Your task to perform on an android device: Check the settings for the Google Maps app Image 0: 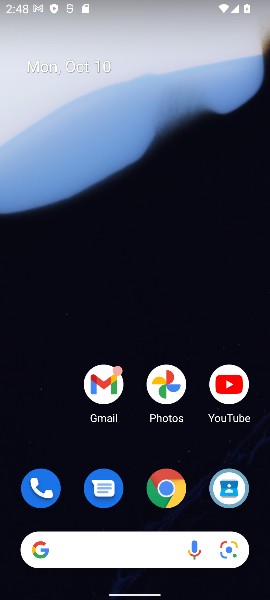
Step 0: drag from (157, 516) to (212, 71)
Your task to perform on an android device: Check the settings for the Google Maps app Image 1: 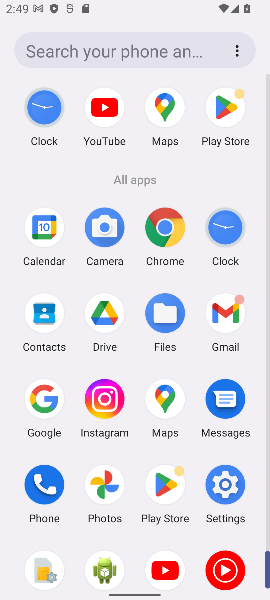
Step 1: click (166, 398)
Your task to perform on an android device: Check the settings for the Google Maps app Image 2: 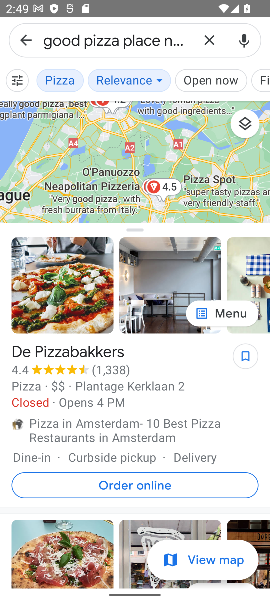
Step 2: click (19, 38)
Your task to perform on an android device: Check the settings for the Google Maps app Image 3: 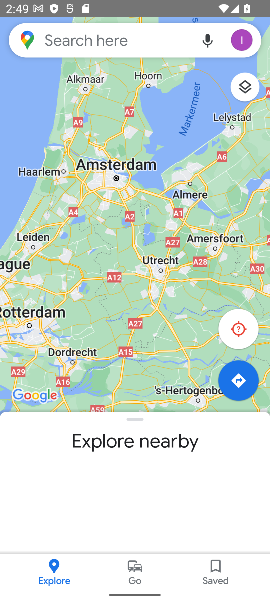
Step 3: click (234, 47)
Your task to perform on an android device: Check the settings for the Google Maps app Image 4: 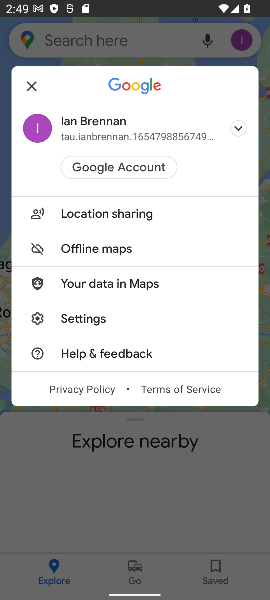
Step 4: click (102, 319)
Your task to perform on an android device: Check the settings for the Google Maps app Image 5: 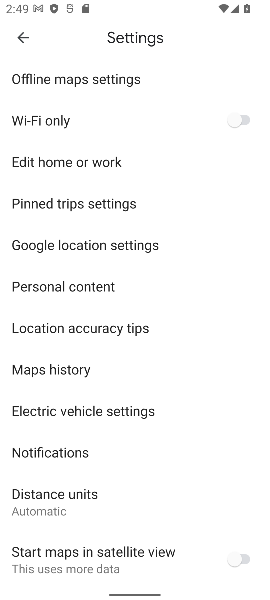
Step 5: task complete